Your task to perform on an android device: Do I have any events this weekend? Image 0: 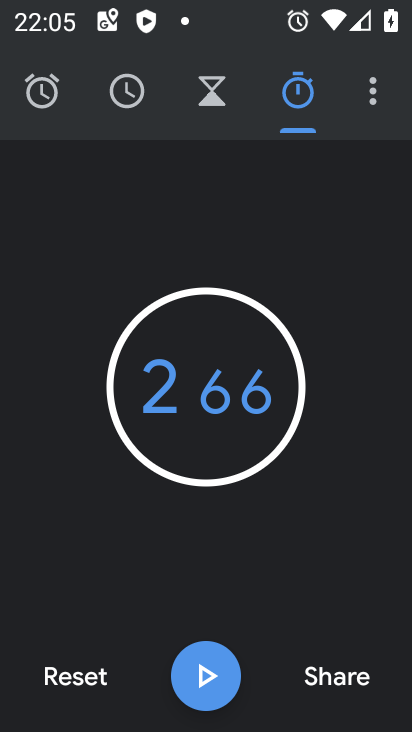
Step 0: press home button
Your task to perform on an android device: Do I have any events this weekend? Image 1: 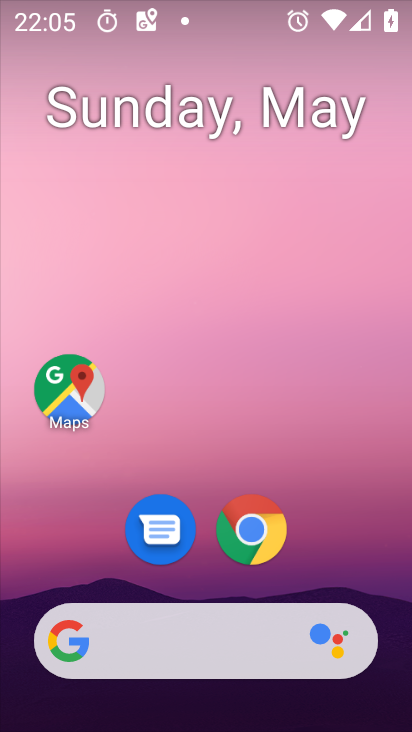
Step 1: drag from (346, 587) to (148, 1)
Your task to perform on an android device: Do I have any events this weekend? Image 2: 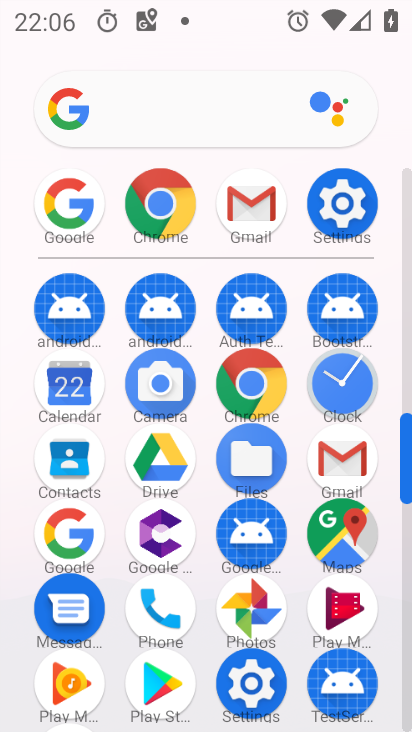
Step 2: click (75, 396)
Your task to perform on an android device: Do I have any events this weekend? Image 3: 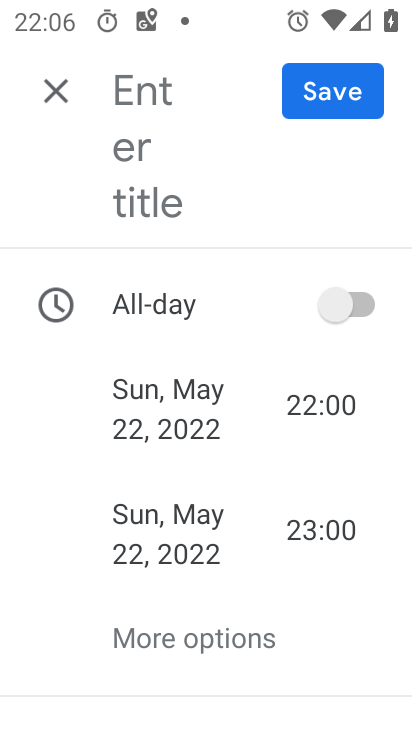
Step 3: click (57, 86)
Your task to perform on an android device: Do I have any events this weekend? Image 4: 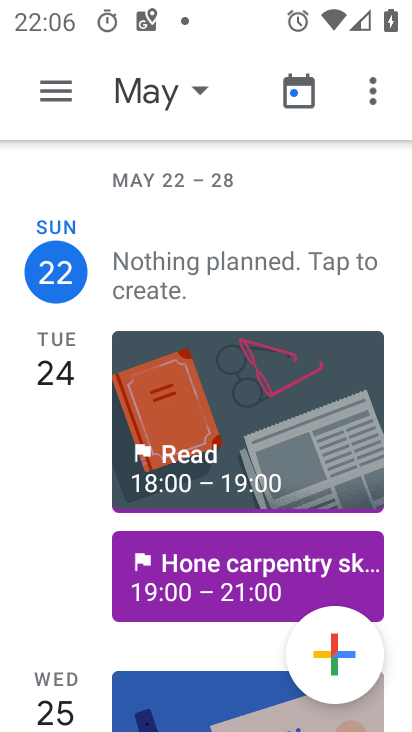
Step 4: click (51, 101)
Your task to perform on an android device: Do I have any events this weekend? Image 5: 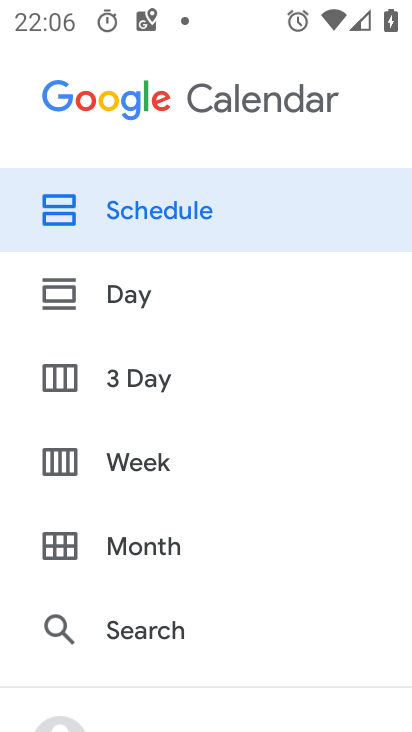
Step 5: click (127, 463)
Your task to perform on an android device: Do I have any events this weekend? Image 6: 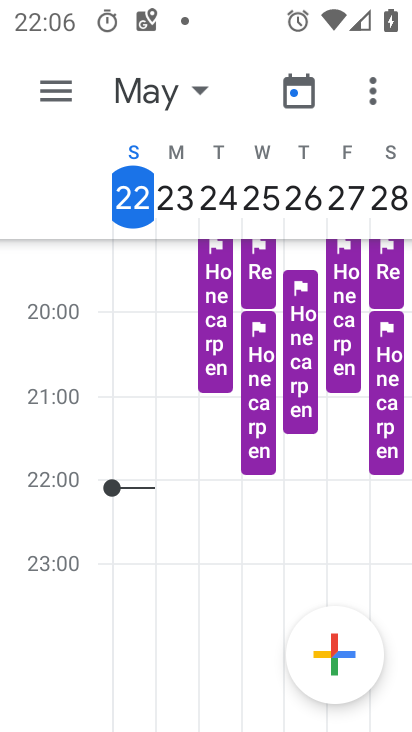
Step 6: drag from (385, 374) to (374, 507)
Your task to perform on an android device: Do I have any events this weekend? Image 7: 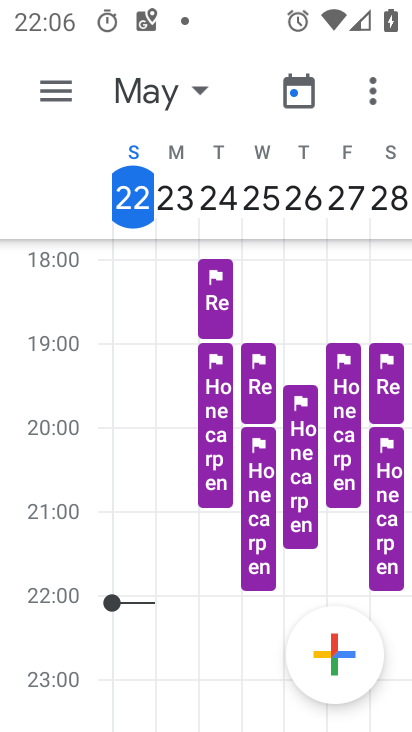
Step 7: click (64, 89)
Your task to perform on an android device: Do I have any events this weekend? Image 8: 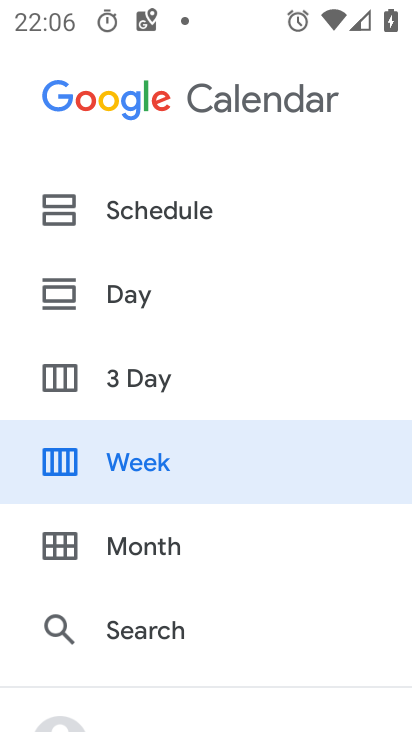
Step 8: click (124, 294)
Your task to perform on an android device: Do I have any events this weekend? Image 9: 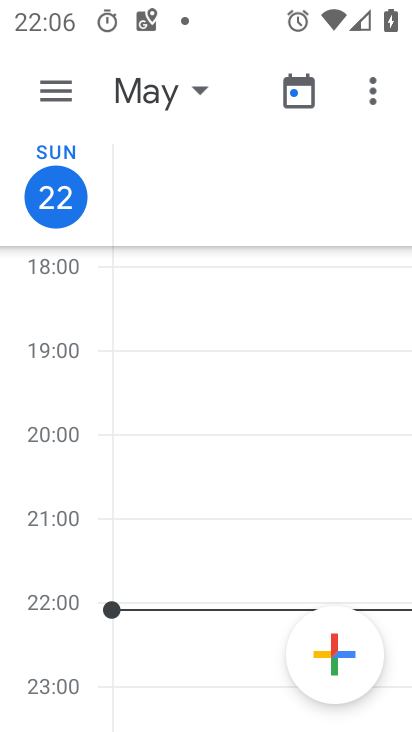
Step 9: click (196, 93)
Your task to perform on an android device: Do I have any events this weekend? Image 10: 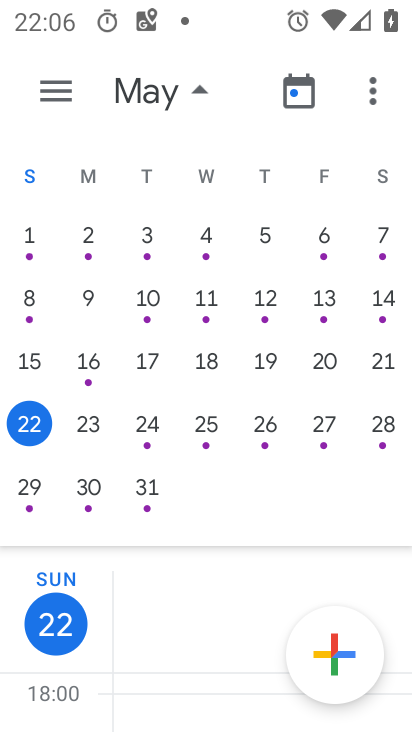
Step 10: click (380, 427)
Your task to perform on an android device: Do I have any events this weekend? Image 11: 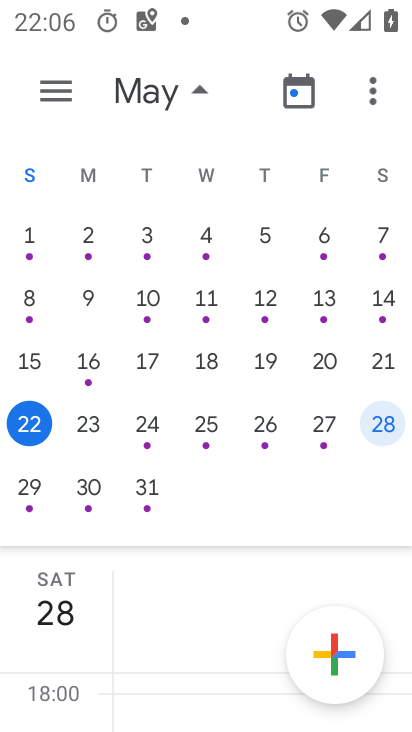
Step 11: task complete